Your task to perform on an android device: open app "Indeed Job Search" (install if not already installed) Image 0: 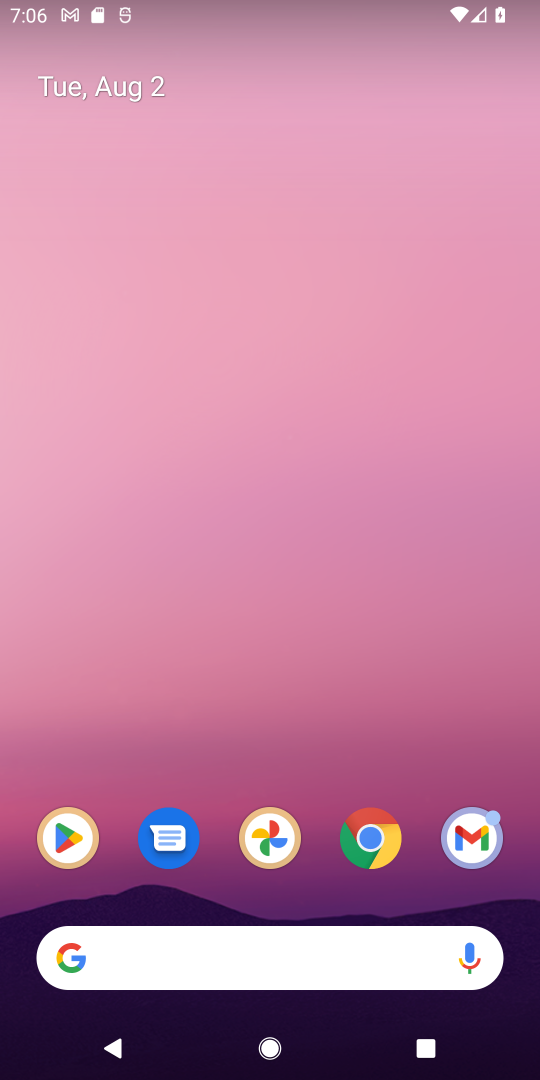
Step 0: click (74, 844)
Your task to perform on an android device: open app "Indeed Job Search" (install if not already installed) Image 1: 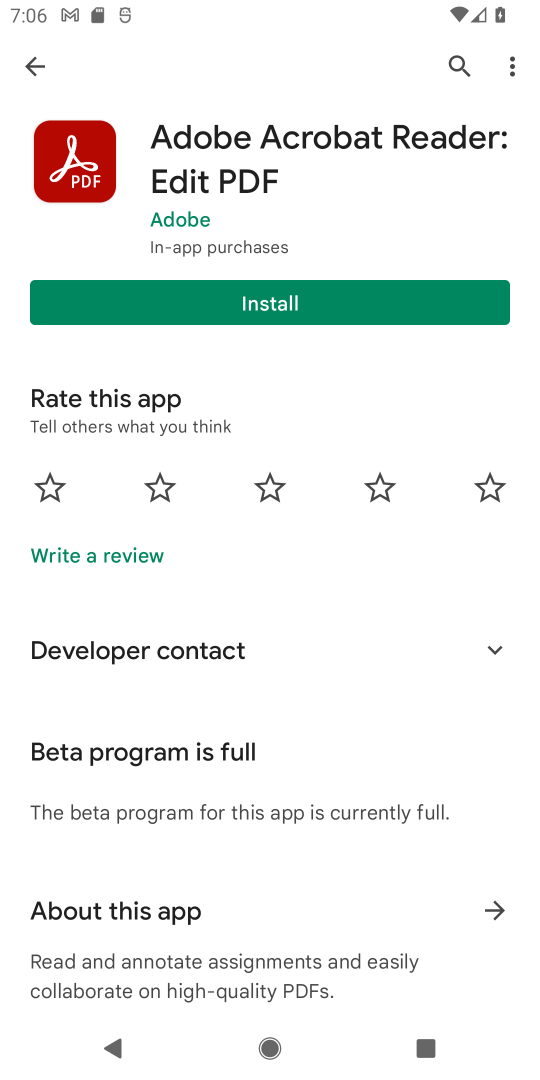
Step 1: click (456, 57)
Your task to perform on an android device: open app "Indeed Job Search" (install if not already installed) Image 2: 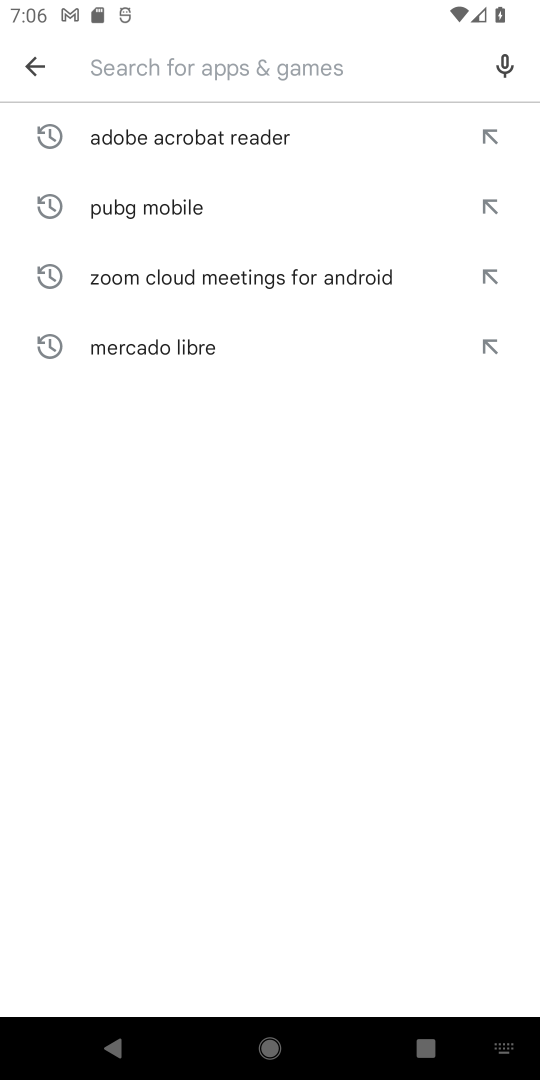
Step 2: type "indeed job search"
Your task to perform on an android device: open app "Indeed Job Search" (install if not already installed) Image 3: 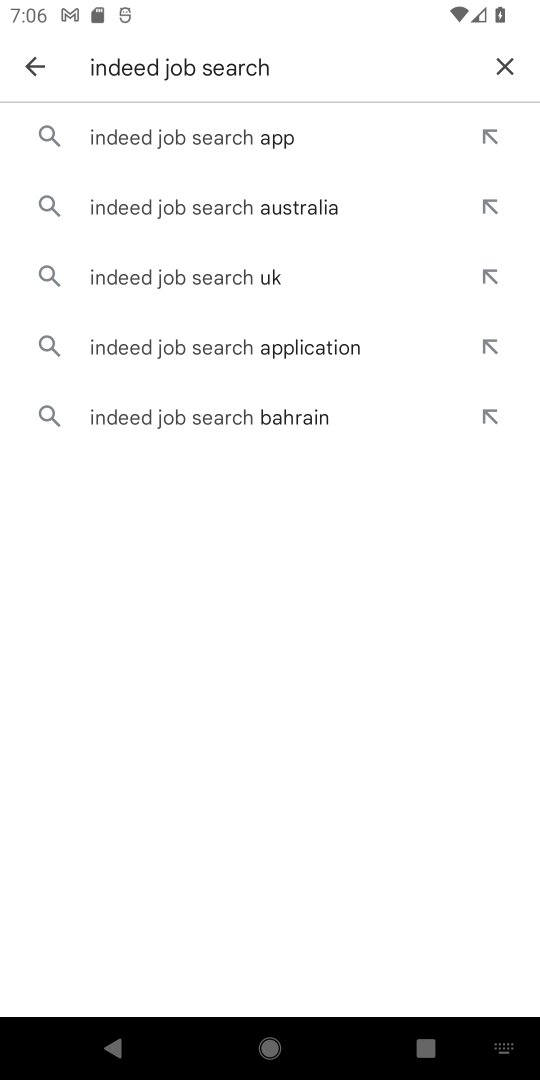
Step 3: click (264, 148)
Your task to perform on an android device: open app "Indeed Job Search" (install if not already installed) Image 4: 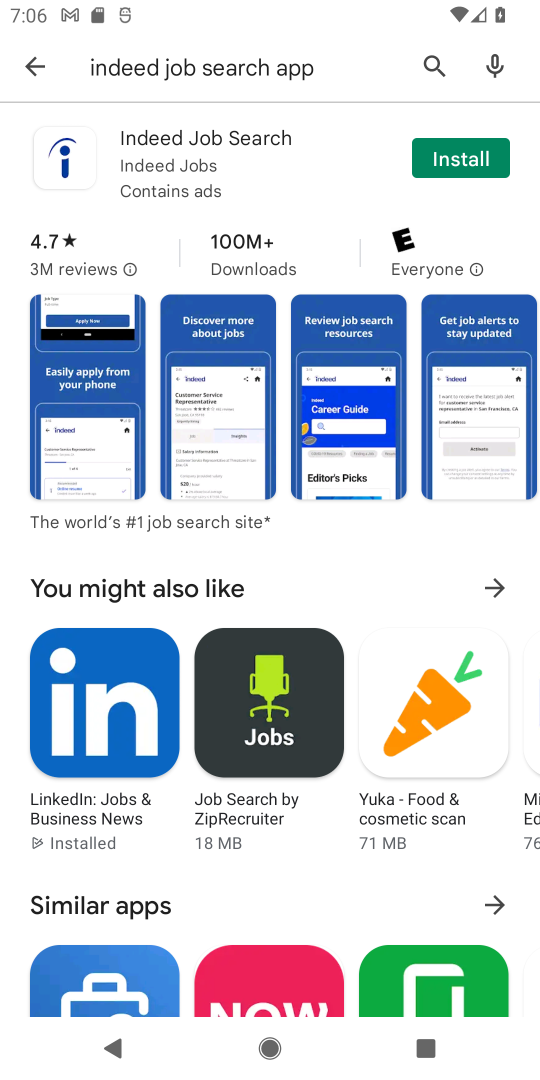
Step 4: click (230, 132)
Your task to perform on an android device: open app "Indeed Job Search" (install if not already installed) Image 5: 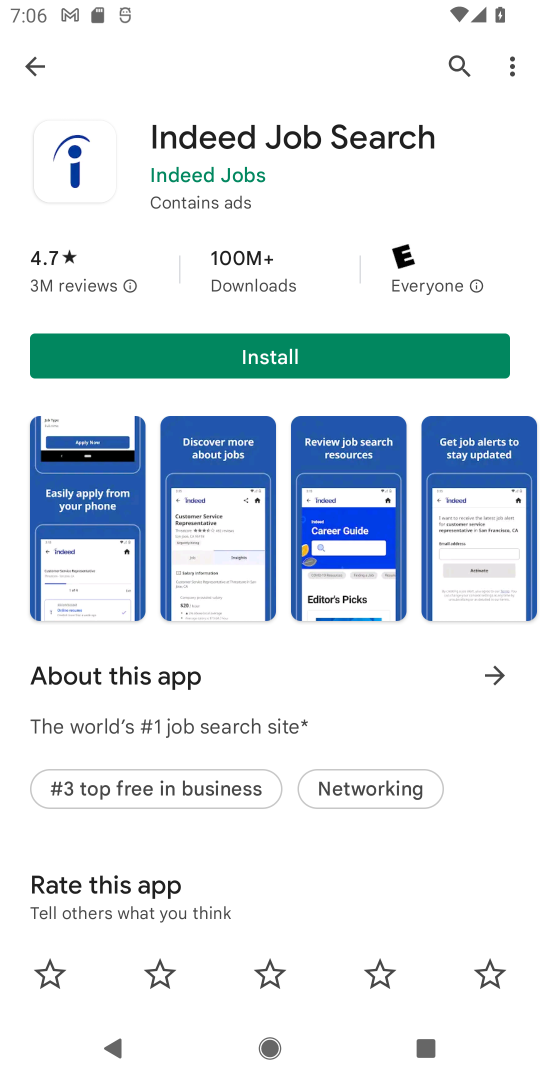
Step 5: click (344, 355)
Your task to perform on an android device: open app "Indeed Job Search" (install if not already installed) Image 6: 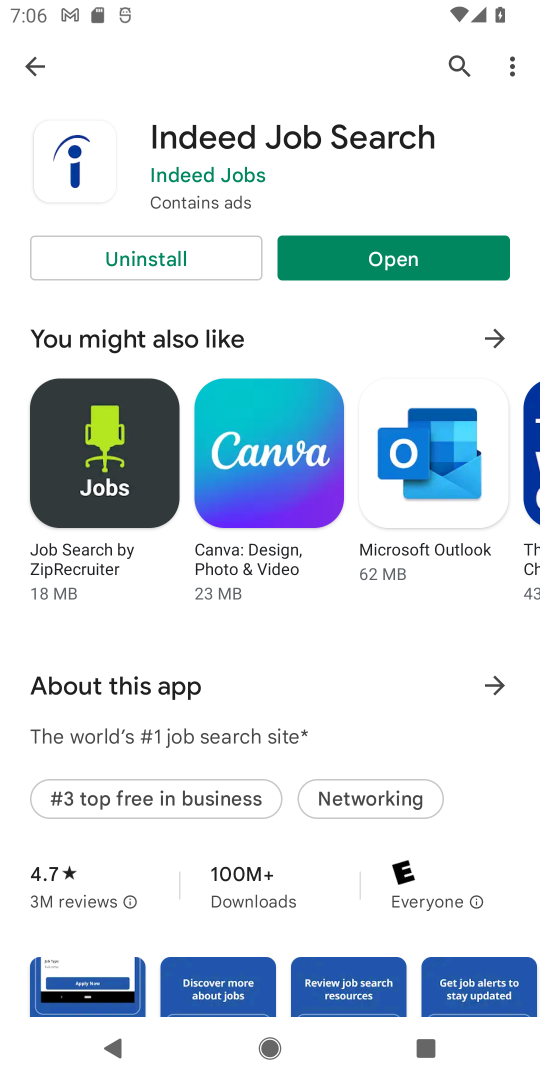
Step 6: click (439, 265)
Your task to perform on an android device: open app "Indeed Job Search" (install if not already installed) Image 7: 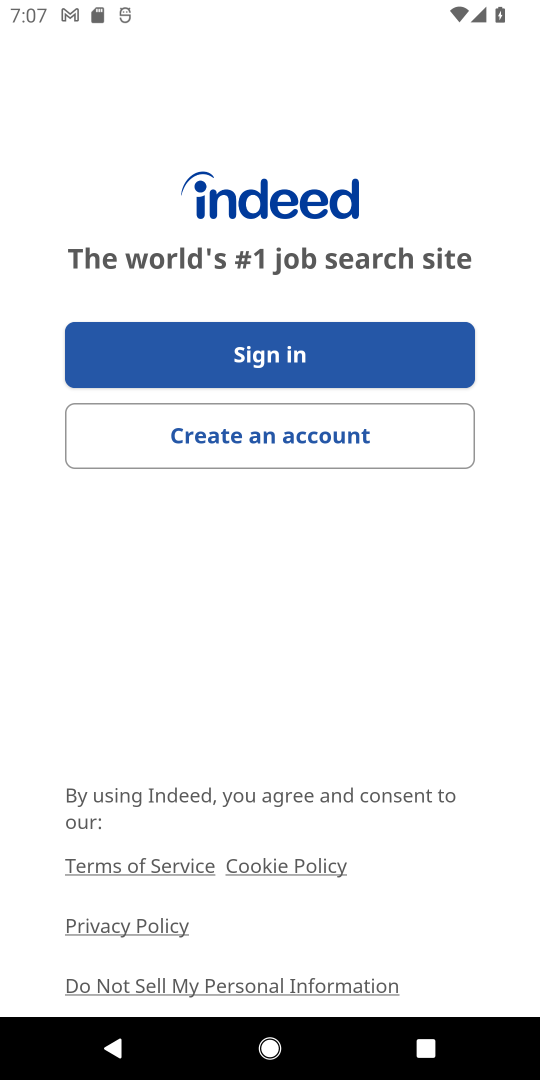
Step 7: task complete